Your task to perform on an android device: When is my next meeting? Image 0: 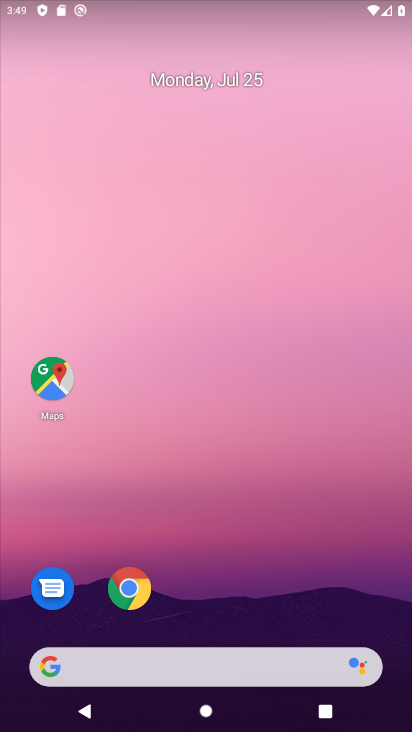
Step 0: click (191, 90)
Your task to perform on an android device: When is my next meeting? Image 1: 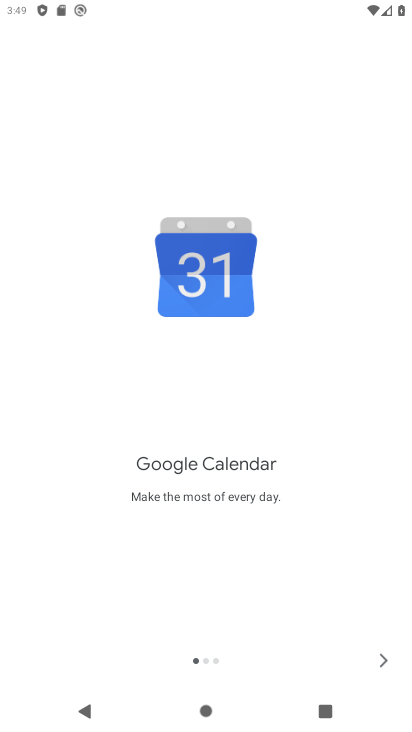
Step 1: click (373, 663)
Your task to perform on an android device: When is my next meeting? Image 2: 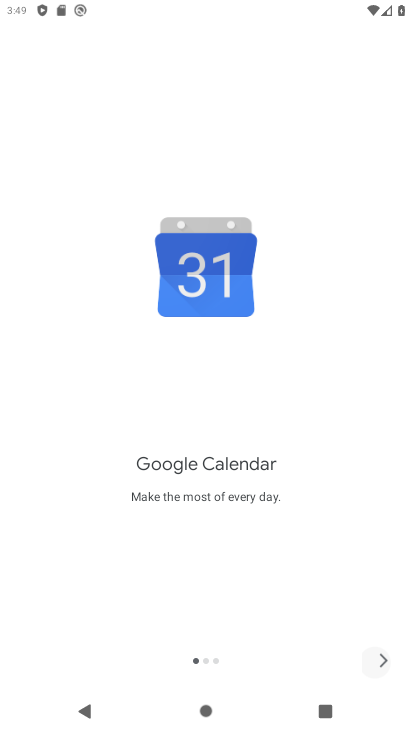
Step 2: click (373, 663)
Your task to perform on an android device: When is my next meeting? Image 3: 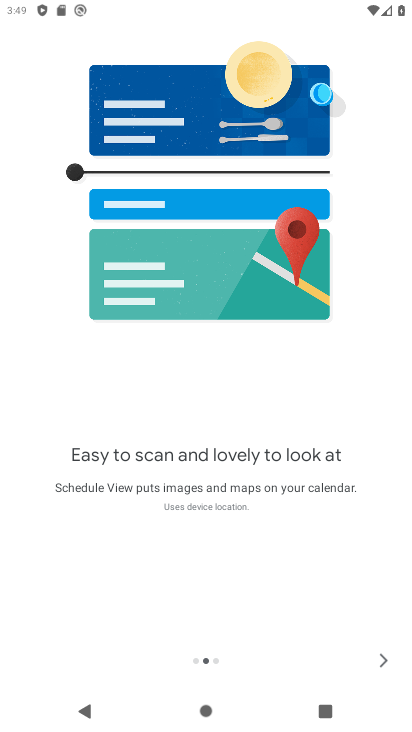
Step 3: click (373, 663)
Your task to perform on an android device: When is my next meeting? Image 4: 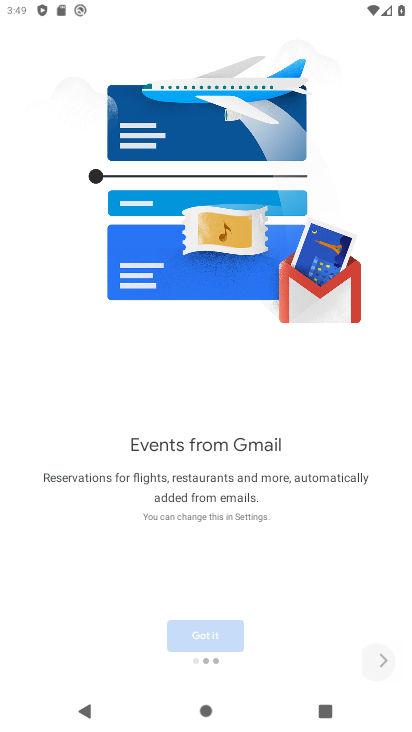
Step 4: click (373, 663)
Your task to perform on an android device: When is my next meeting? Image 5: 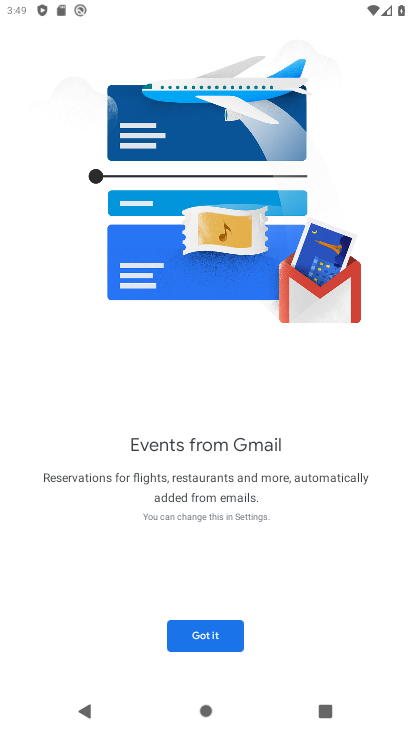
Step 5: click (373, 663)
Your task to perform on an android device: When is my next meeting? Image 6: 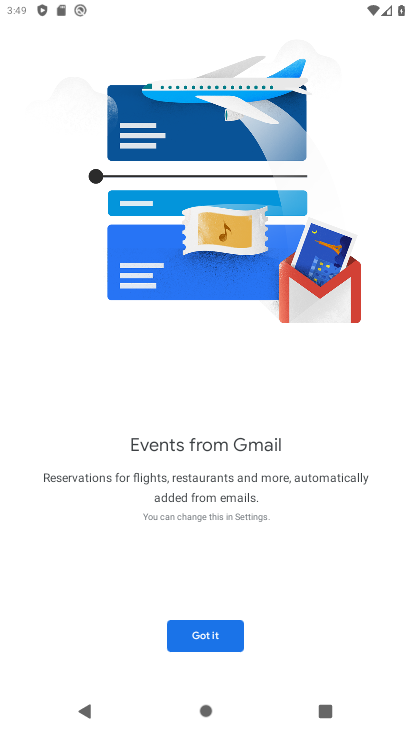
Step 6: click (373, 663)
Your task to perform on an android device: When is my next meeting? Image 7: 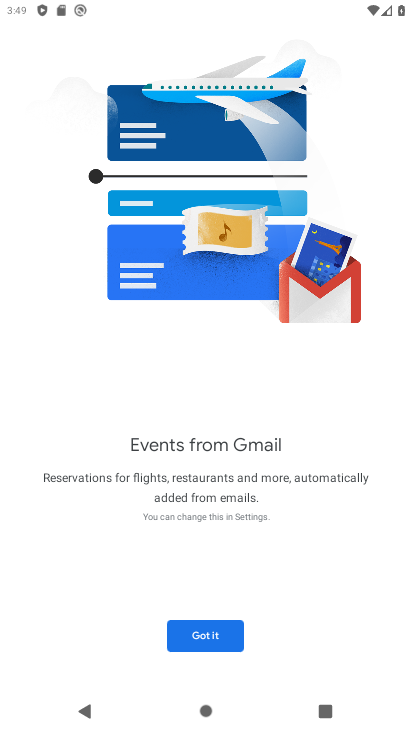
Step 7: click (373, 663)
Your task to perform on an android device: When is my next meeting? Image 8: 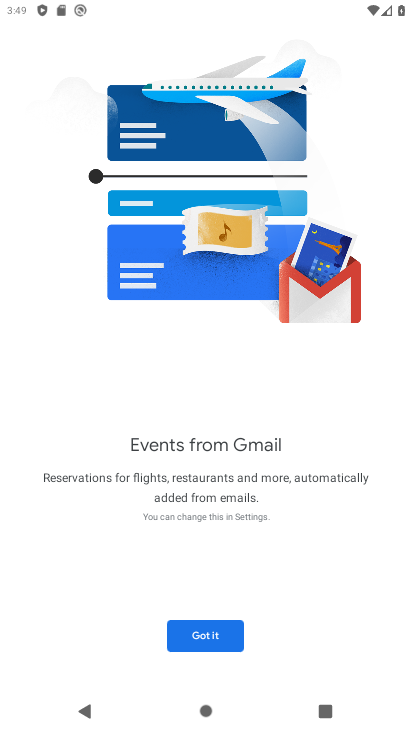
Step 8: click (182, 624)
Your task to perform on an android device: When is my next meeting? Image 9: 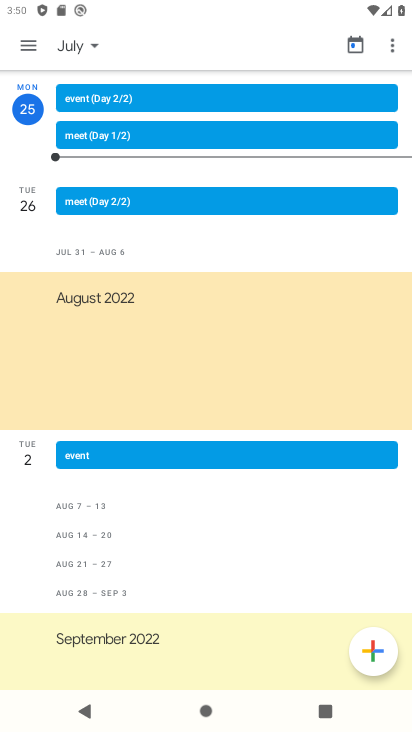
Step 9: task complete